Your task to perform on an android device: Open settings Image 0: 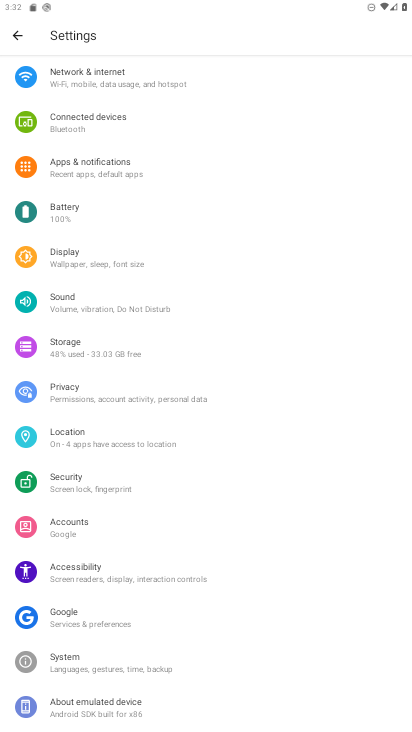
Step 0: task complete